Your task to perform on an android device: Open Wikipedia Image 0: 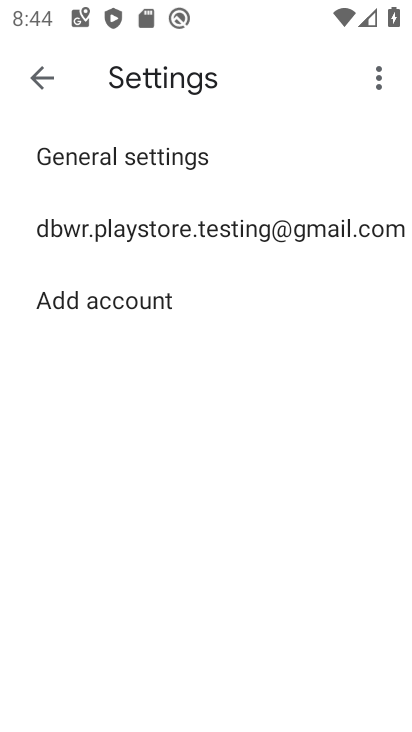
Step 0: press home button
Your task to perform on an android device: Open Wikipedia Image 1: 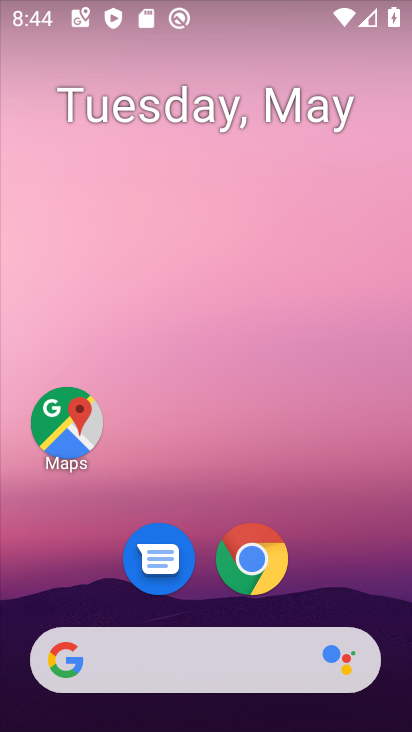
Step 1: click (246, 577)
Your task to perform on an android device: Open Wikipedia Image 2: 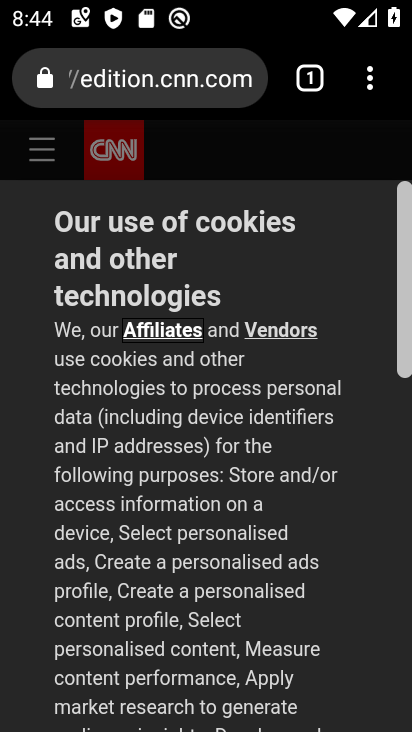
Step 2: click (184, 89)
Your task to perform on an android device: Open Wikipedia Image 3: 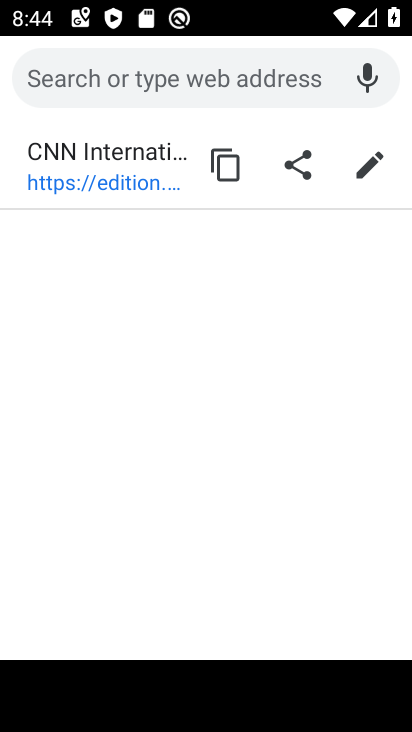
Step 3: type "wikipedia"
Your task to perform on an android device: Open Wikipedia Image 4: 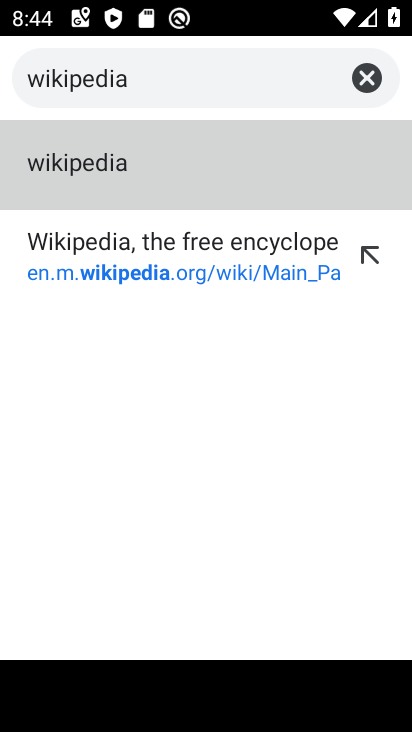
Step 4: click (172, 279)
Your task to perform on an android device: Open Wikipedia Image 5: 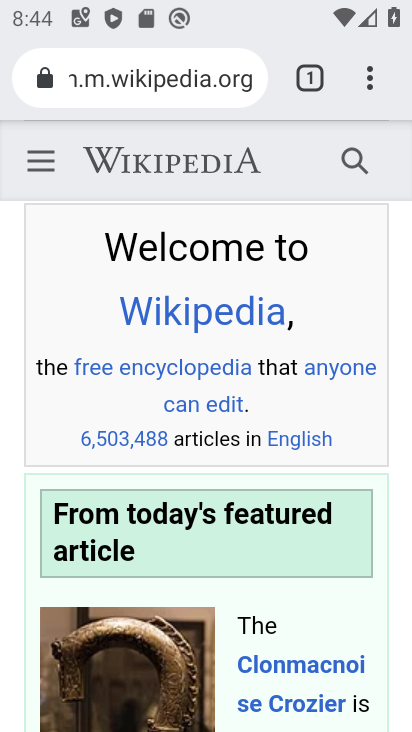
Step 5: task complete